Your task to perform on an android device: Open Google Maps and go to "Timeline" Image 0: 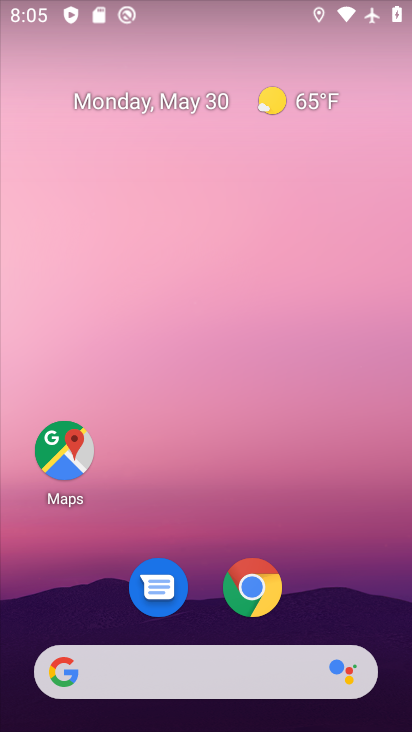
Step 0: click (57, 460)
Your task to perform on an android device: Open Google Maps and go to "Timeline" Image 1: 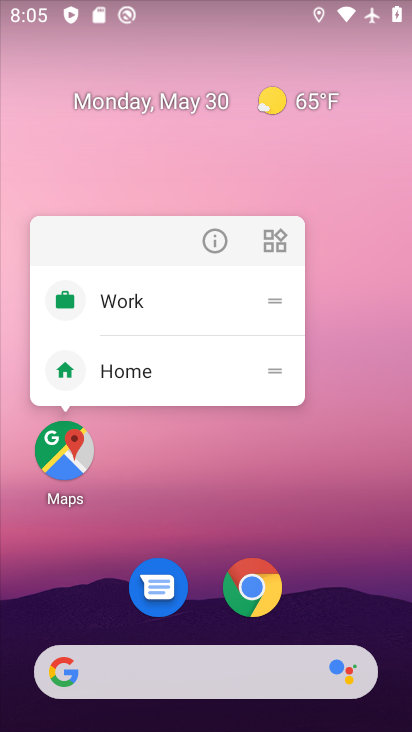
Step 1: click (57, 461)
Your task to perform on an android device: Open Google Maps and go to "Timeline" Image 2: 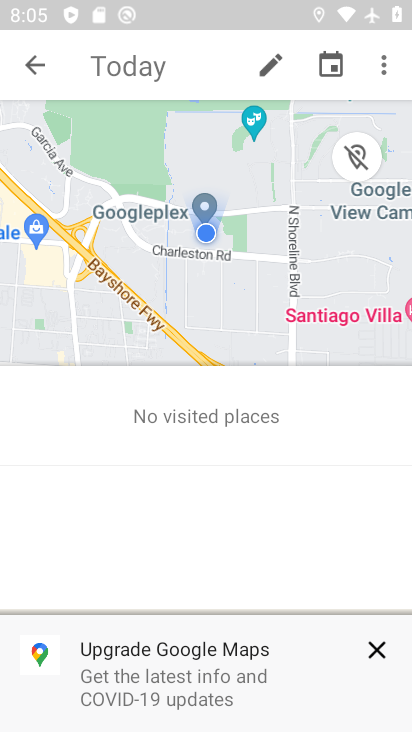
Step 2: task complete